Your task to perform on an android device: Toggle the flashlight Image 0: 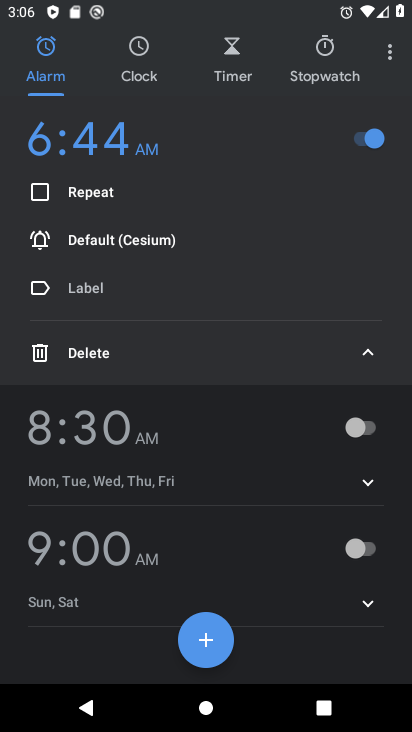
Step 0: press back button
Your task to perform on an android device: Toggle the flashlight Image 1: 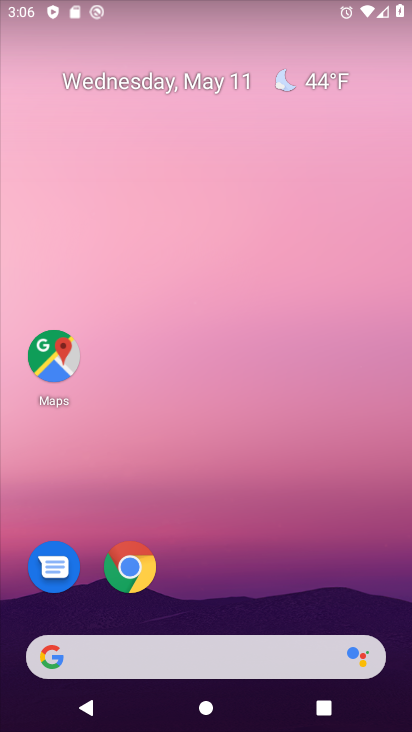
Step 1: drag from (241, 520) to (218, 36)
Your task to perform on an android device: Toggle the flashlight Image 2: 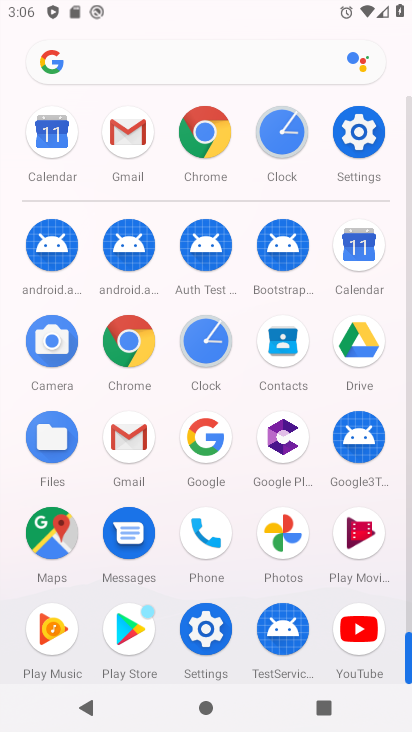
Step 2: click (363, 130)
Your task to perform on an android device: Toggle the flashlight Image 3: 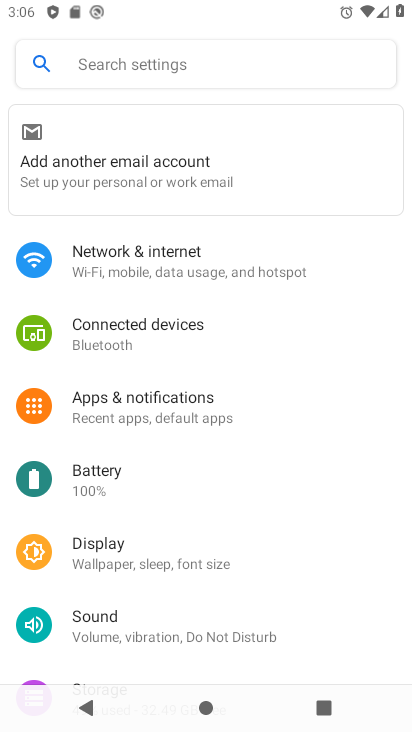
Step 3: click (208, 258)
Your task to perform on an android device: Toggle the flashlight Image 4: 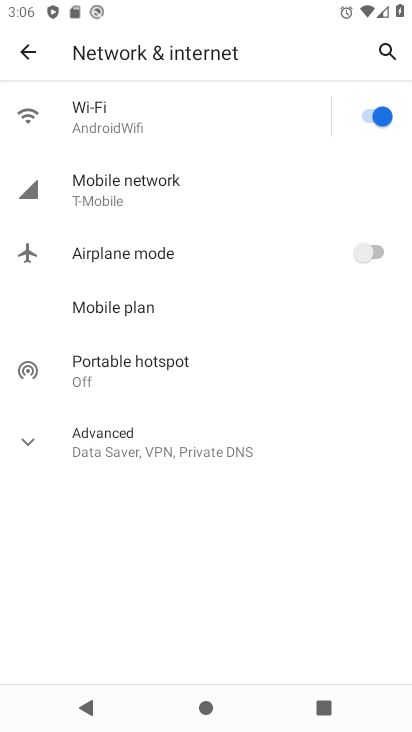
Step 4: click (37, 447)
Your task to perform on an android device: Toggle the flashlight Image 5: 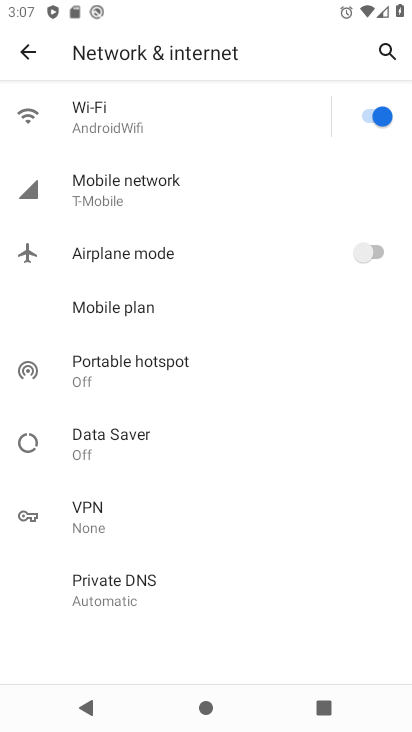
Step 5: task complete